Your task to perform on an android device: turn on translation in the chrome app Image 0: 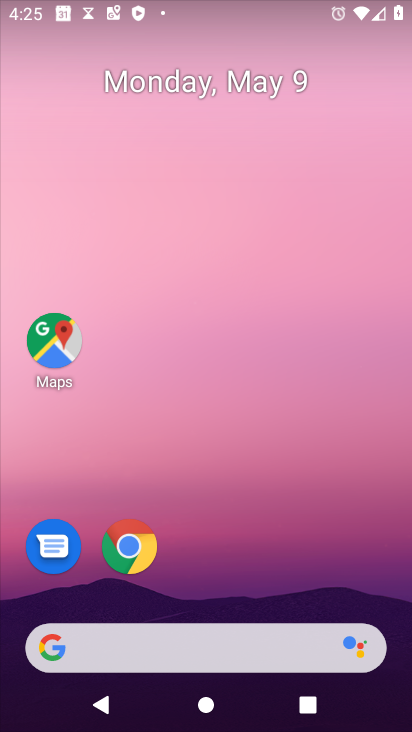
Step 0: drag from (293, 523) to (191, 36)
Your task to perform on an android device: turn on translation in the chrome app Image 1: 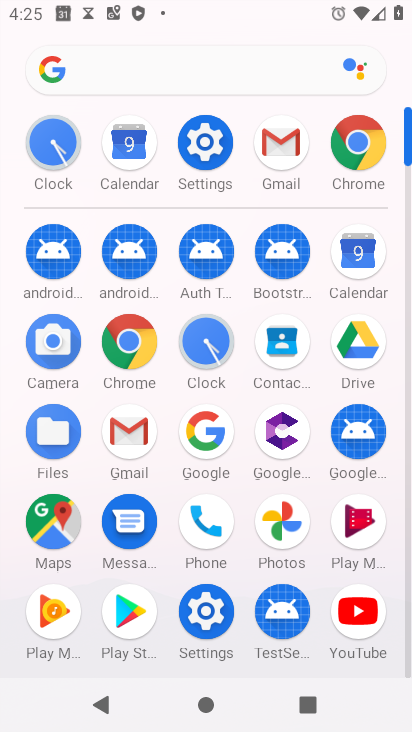
Step 1: click (344, 128)
Your task to perform on an android device: turn on translation in the chrome app Image 2: 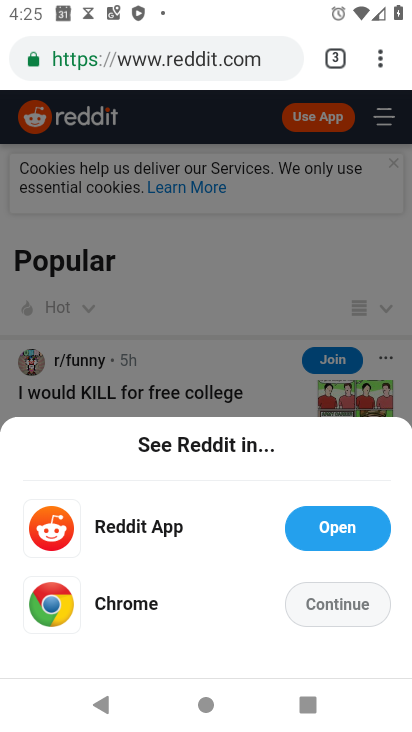
Step 2: drag from (388, 64) to (187, 566)
Your task to perform on an android device: turn on translation in the chrome app Image 3: 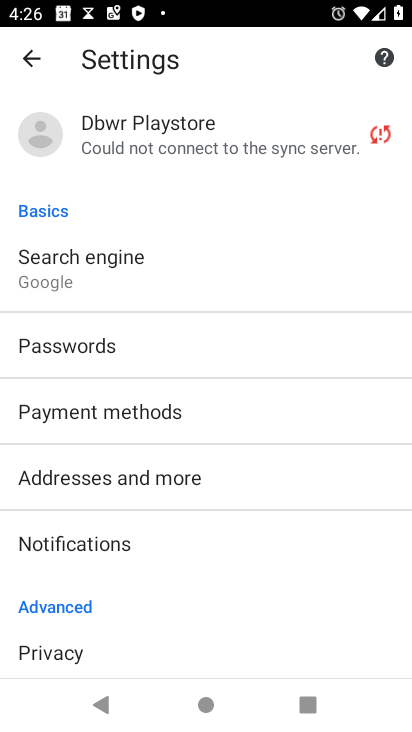
Step 3: drag from (168, 584) to (165, 204)
Your task to perform on an android device: turn on translation in the chrome app Image 4: 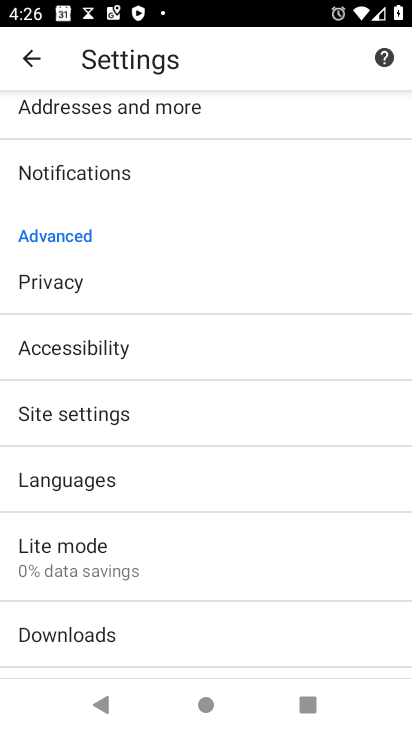
Step 4: click (58, 488)
Your task to perform on an android device: turn on translation in the chrome app Image 5: 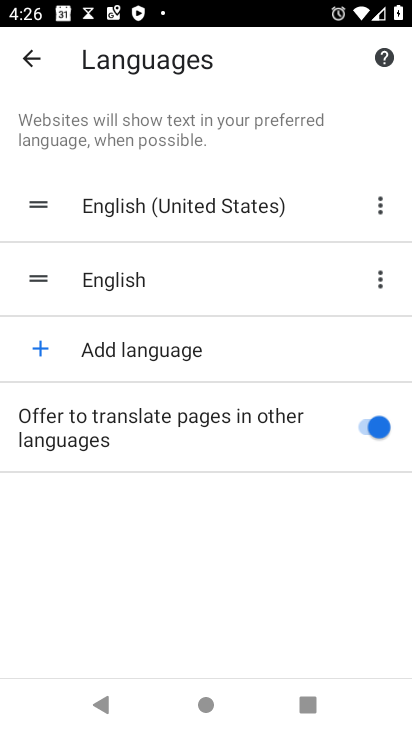
Step 5: task complete